Your task to perform on an android device: Do I have any events tomorrow? Image 0: 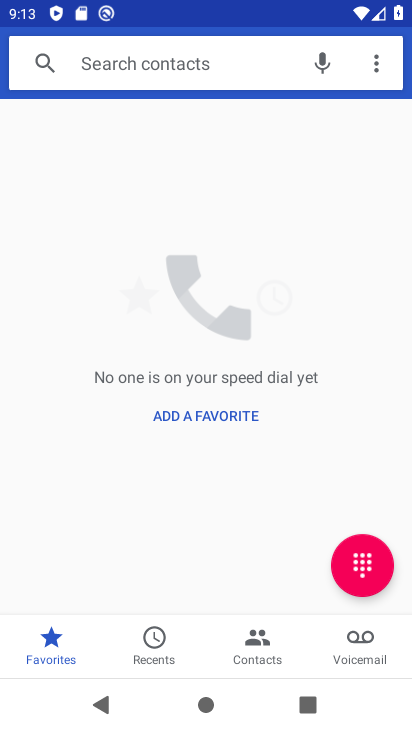
Step 0: press home button
Your task to perform on an android device: Do I have any events tomorrow? Image 1: 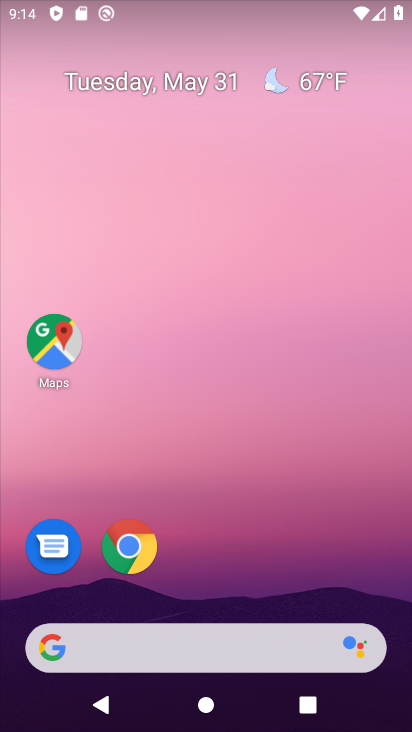
Step 1: drag from (210, 592) to (236, 95)
Your task to perform on an android device: Do I have any events tomorrow? Image 2: 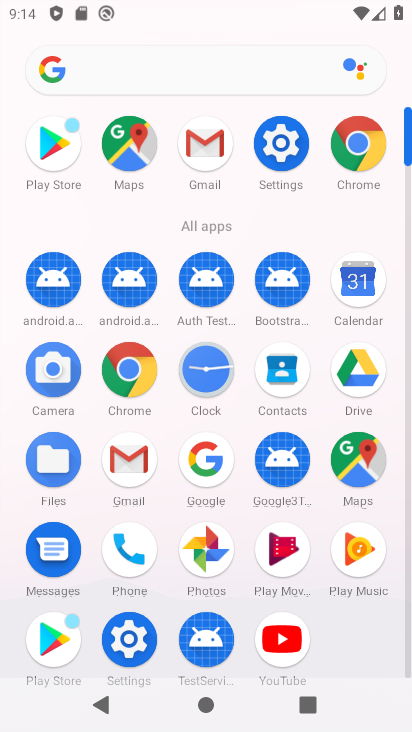
Step 2: click (361, 290)
Your task to perform on an android device: Do I have any events tomorrow? Image 3: 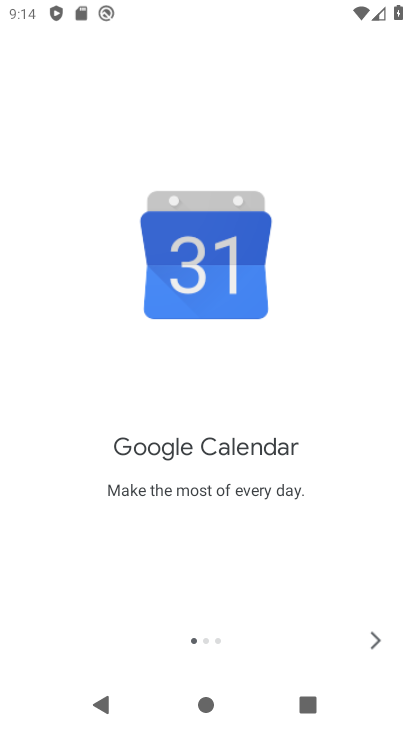
Step 3: click (376, 639)
Your task to perform on an android device: Do I have any events tomorrow? Image 4: 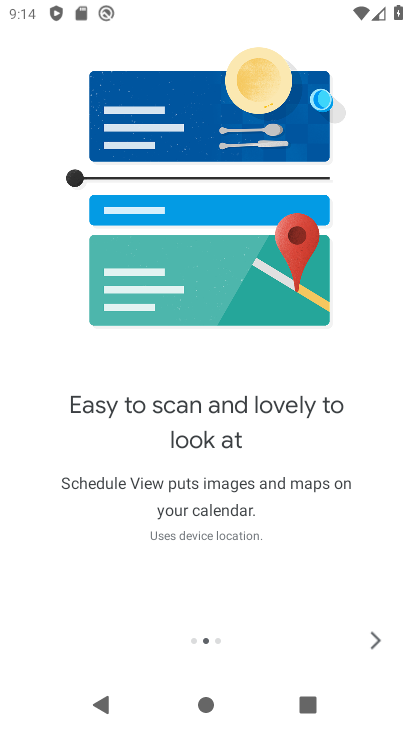
Step 4: click (377, 639)
Your task to perform on an android device: Do I have any events tomorrow? Image 5: 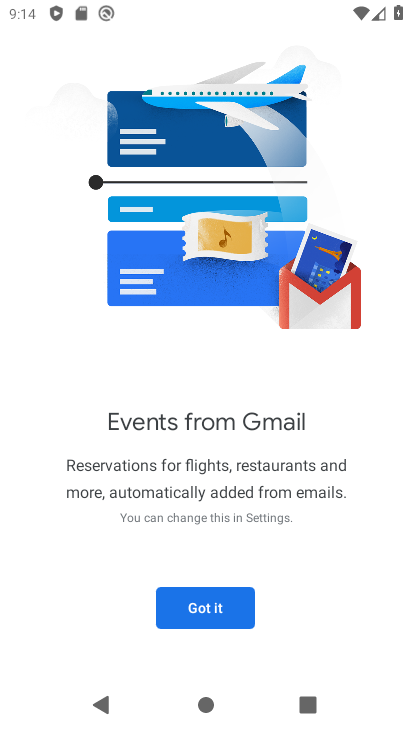
Step 5: click (208, 606)
Your task to perform on an android device: Do I have any events tomorrow? Image 6: 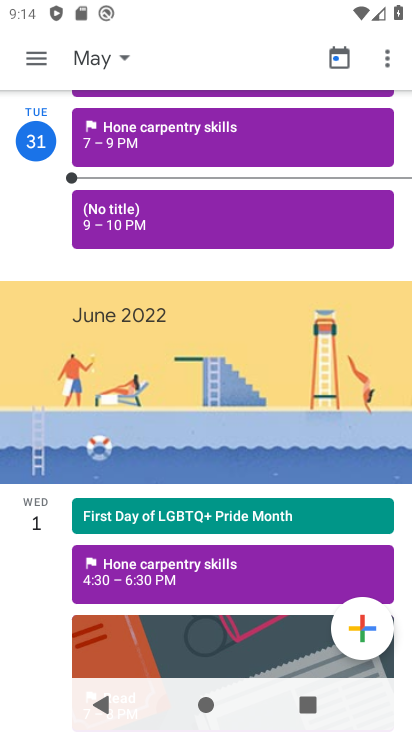
Step 6: click (37, 55)
Your task to perform on an android device: Do I have any events tomorrow? Image 7: 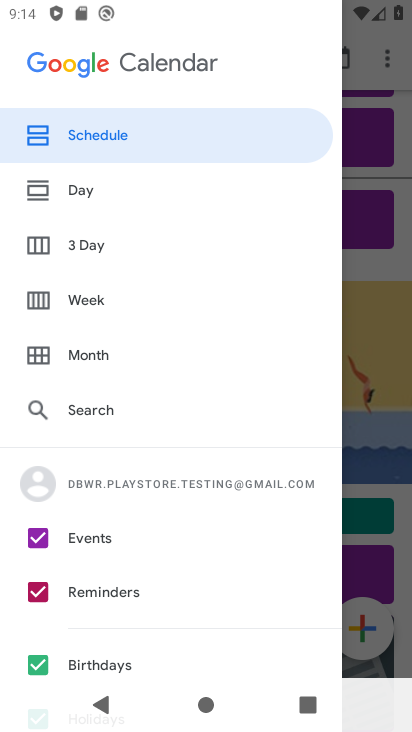
Step 7: click (93, 239)
Your task to perform on an android device: Do I have any events tomorrow? Image 8: 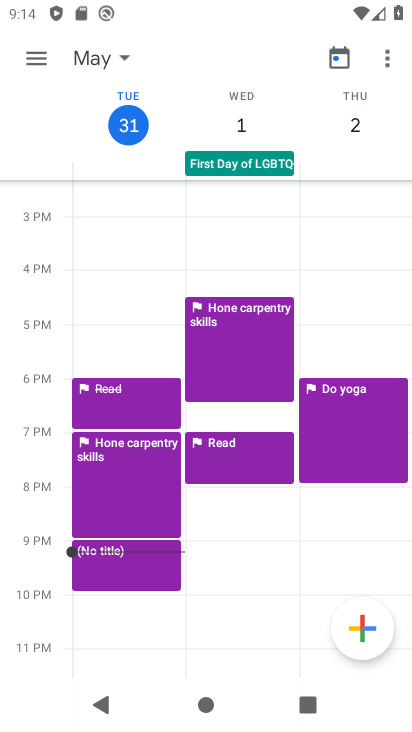
Step 8: task complete